Your task to perform on an android device: change the clock style Image 0: 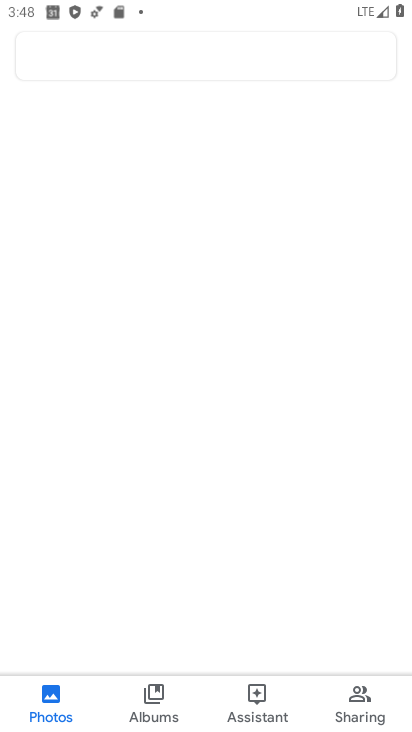
Step 0: press home button
Your task to perform on an android device: change the clock style Image 1: 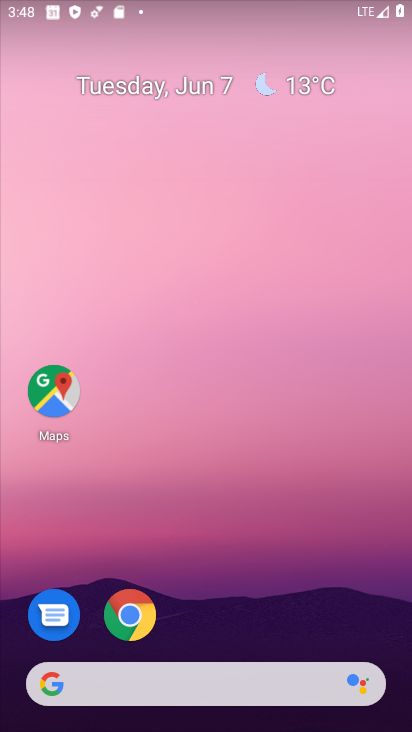
Step 1: drag from (208, 697) to (182, 128)
Your task to perform on an android device: change the clock style Image 2: 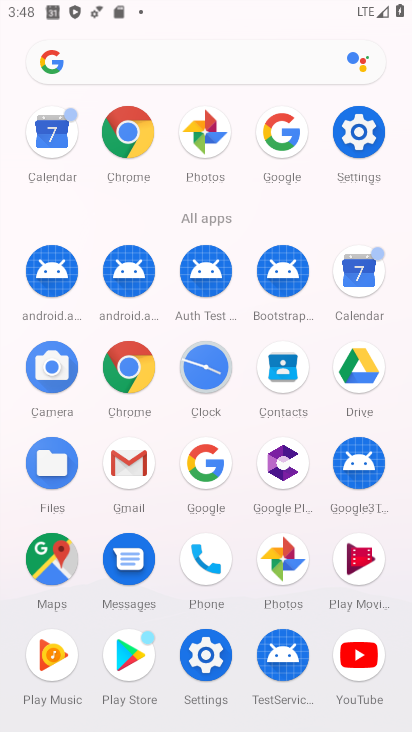
Step 2: click (203, 373)
Your task to perform on an android device: change the clock style Image 3: 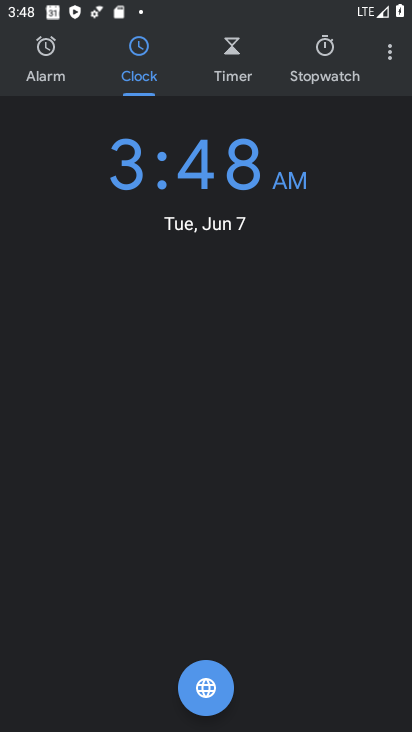
Step 3: click (391, 56)
Your task to perform on an android device: change the clock style Image 4: 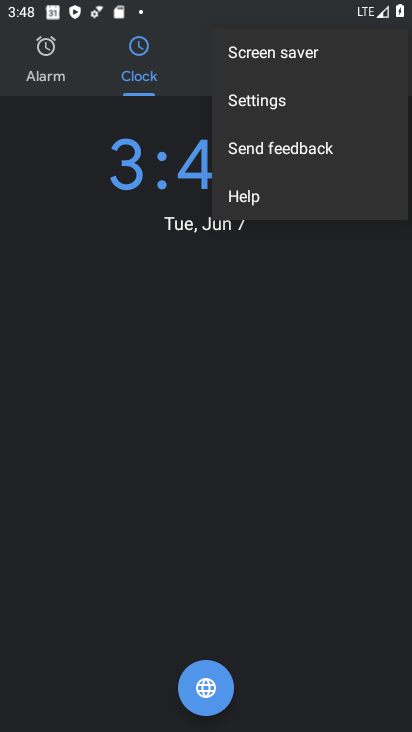
Step 4: click (252, 103)
Your task to perform on an android device: change the clock style Image 5: 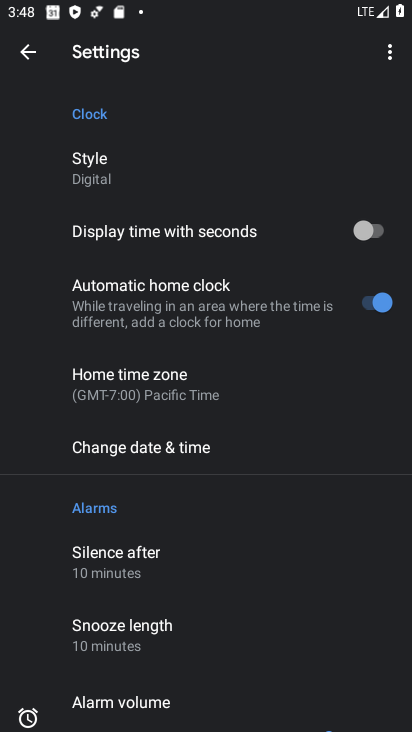
Step 5: click (91, 173)
Your task to perform on an android device: change the clock style Image 6: 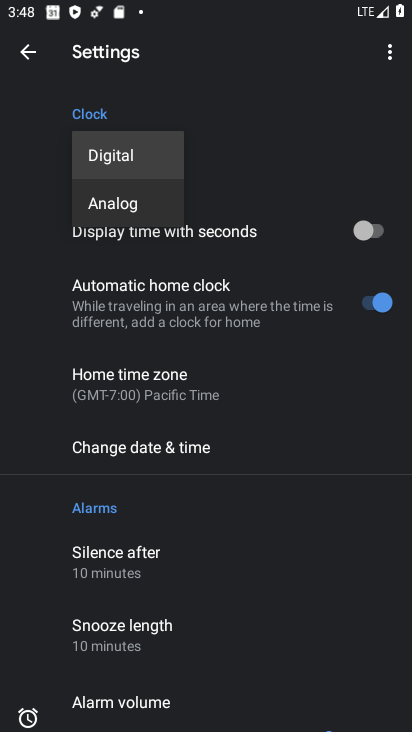
Step 6: click (107, 203)
Your task to perform on an android device: change the clock style Image 7: 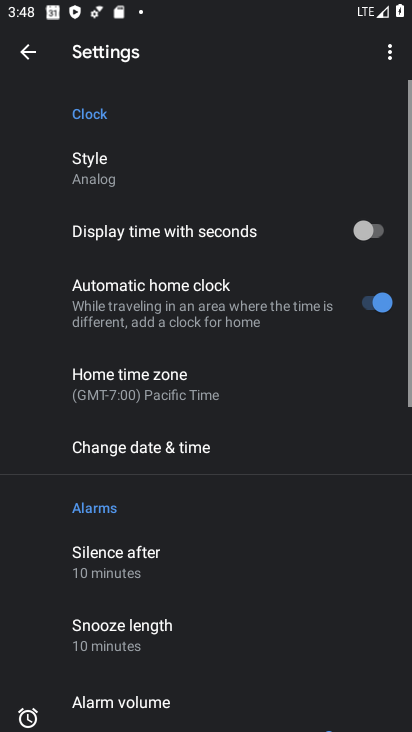
Step 7: task complete